Your task to perform on an android device: Turn on the flashlight Image 0: 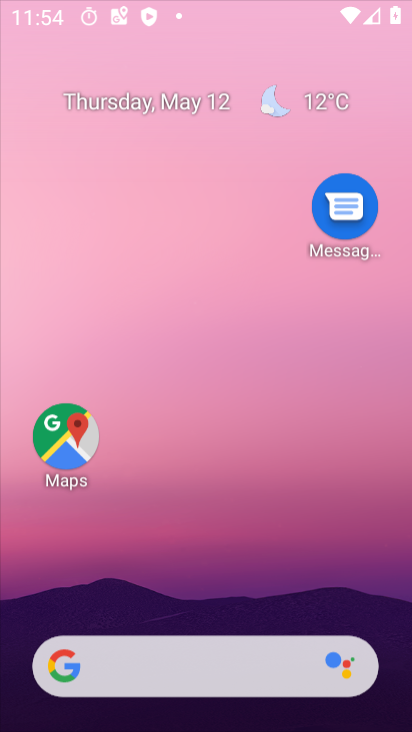
Step 0: press home button
Your task to perform on an android device: Turn on the flashlight Image 1: 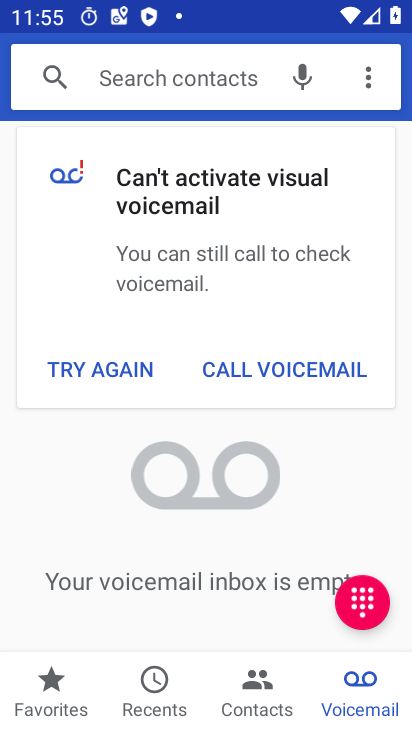
Step 1: task complete